Your task to perform on an android device: toggle sleep mode Image 0: 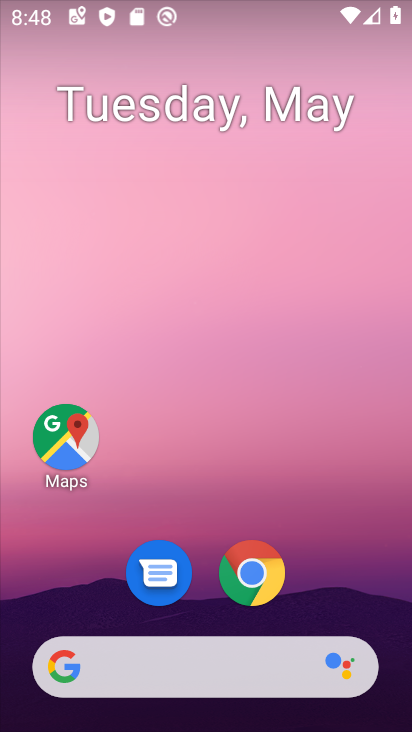
Step 0: drag from (365, 689) to (133, 153)
Your task to perform on an android device: toggle sleep mode Image 1: 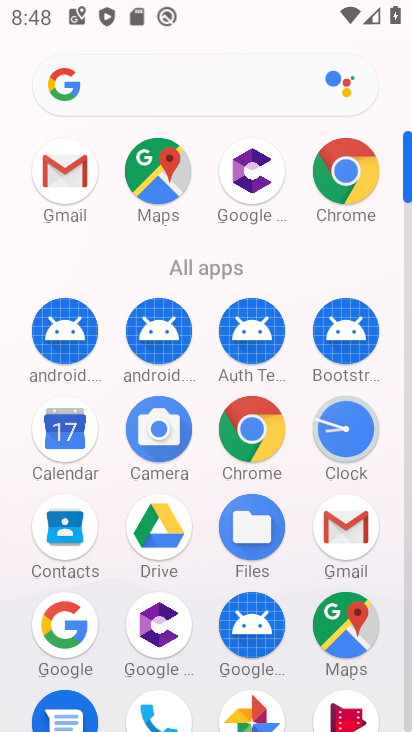
Step 1: drag from (295, 623) to (195, 151)
Your task to perform on an android device: toggle sleep mode Image 2: 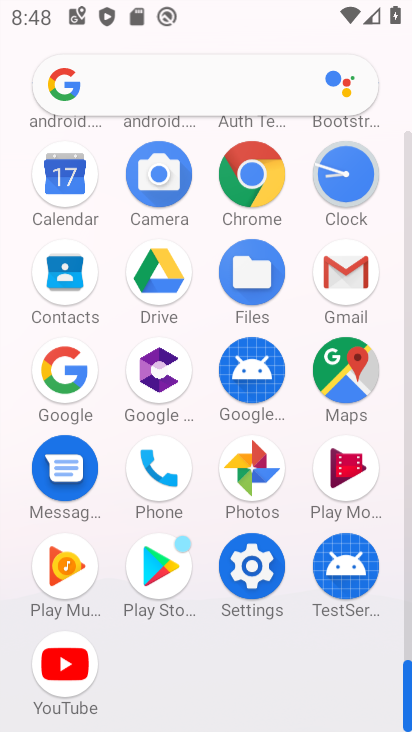
Step 2: drag from (240, 452) to (162, 121)
Your task to perform on an android device: toggle sleep mode Image 3: 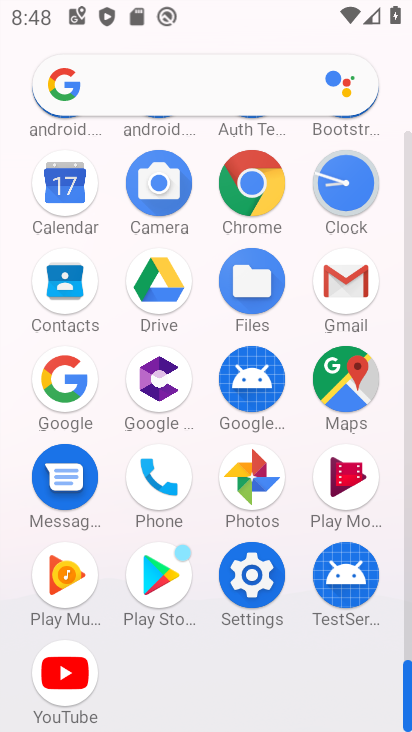
Step 3: click (251, 572)
Your task to perform on an android device: toggle sleep mode Image 4: 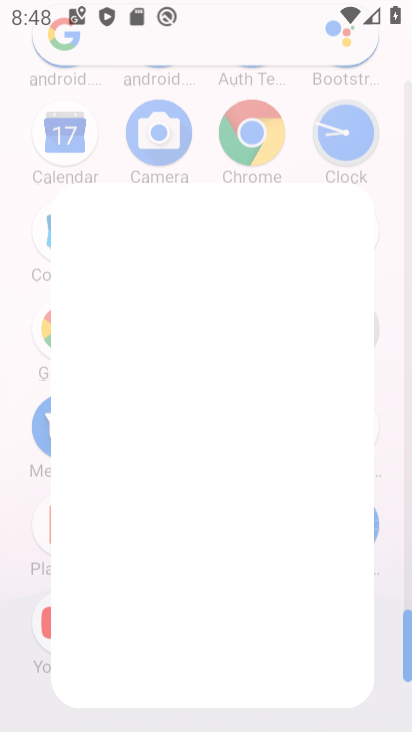
Step 4: click (254, 572)
Your task to perform on an android device: toggle sleep mode Image 5: 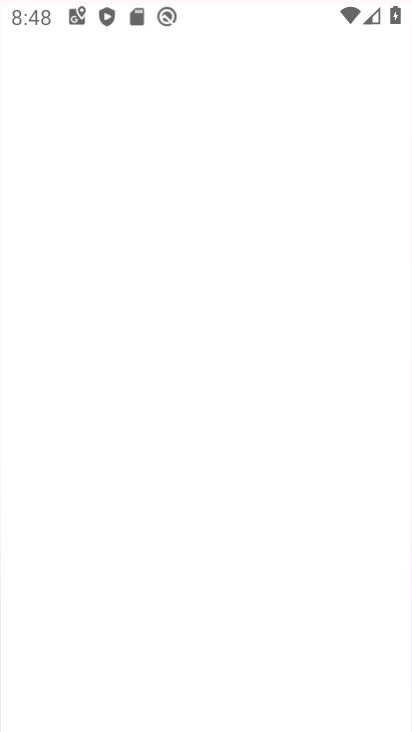
Step 5: click (261, 557)
Your task to perform on an android device: toggle sleep mode Image 6: 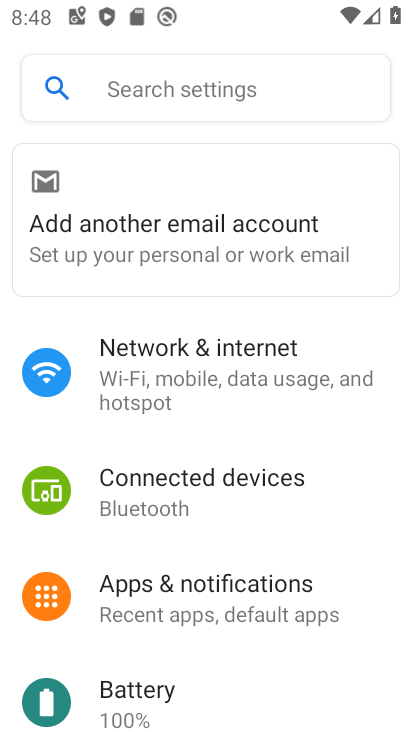
Step 6: drag from (205, 655) to (191, 292)
Your task to perform on an android device: toggle sleep mode Image 7: 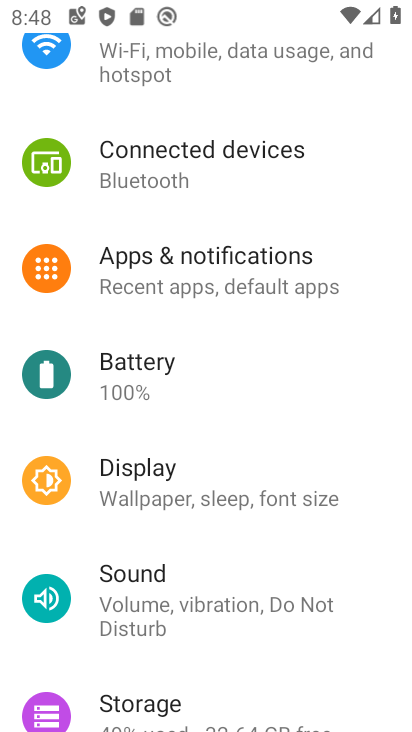
Step 7: click (143, 482)
Your task to perform on an android device: toggle sleep mode Image 8: 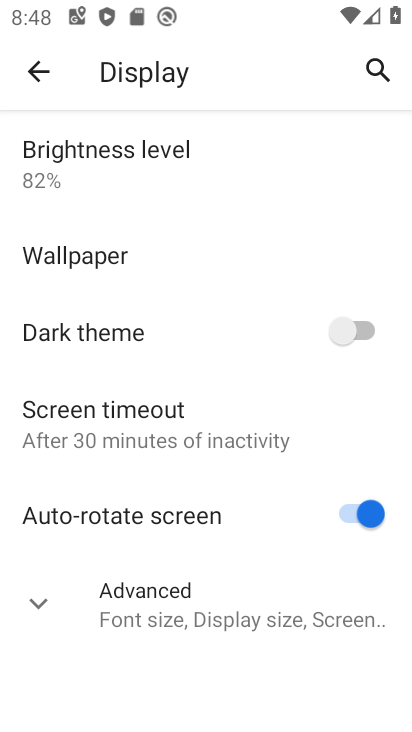
Step 8: click (104, 414)
Your task to perform on an android device: toggle sleep mode Image 9: 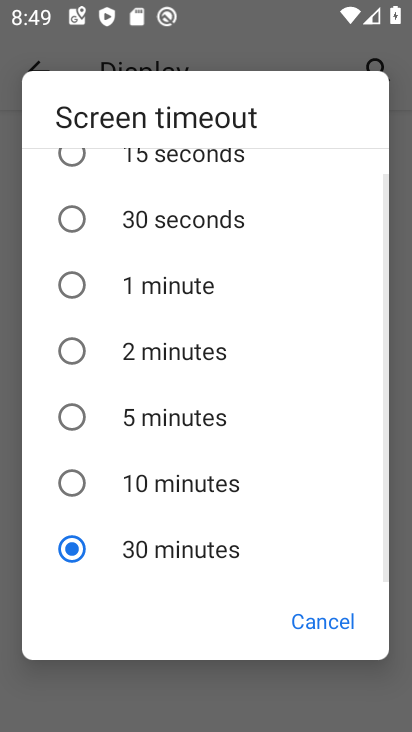
Step 9: click (71, 418)
Your task to perform on an android device: toggle sleep mode Image 10: 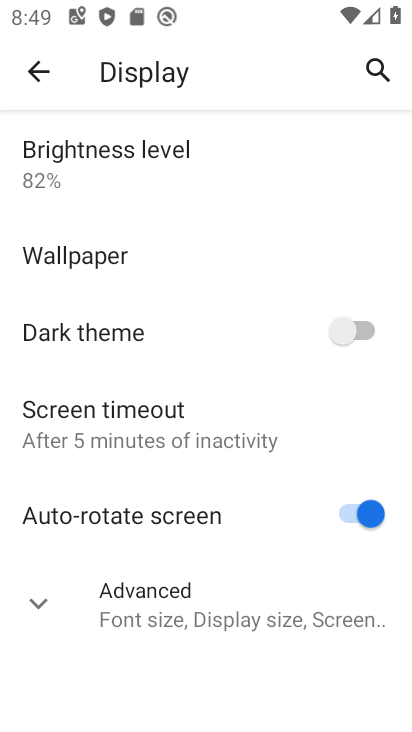
Step 10: task complete